Your task to perform on an android device: turn off translation in the chrome app Image 0: 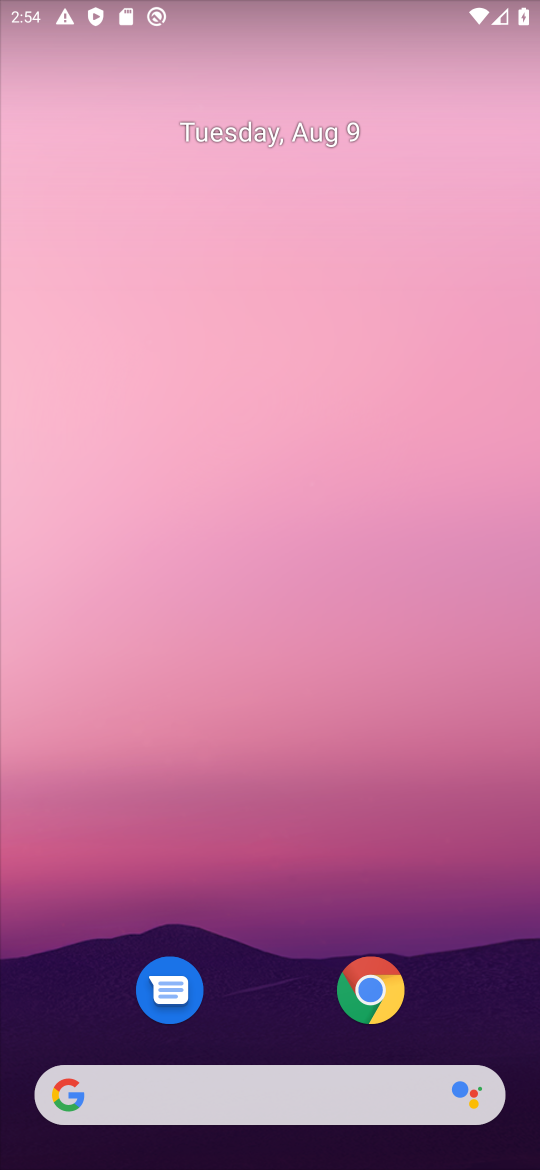
Step 0: drag from (373, 1105) to (368, 192)
Your task to perform on an android device: turn off translation in the chrome app Image 1: 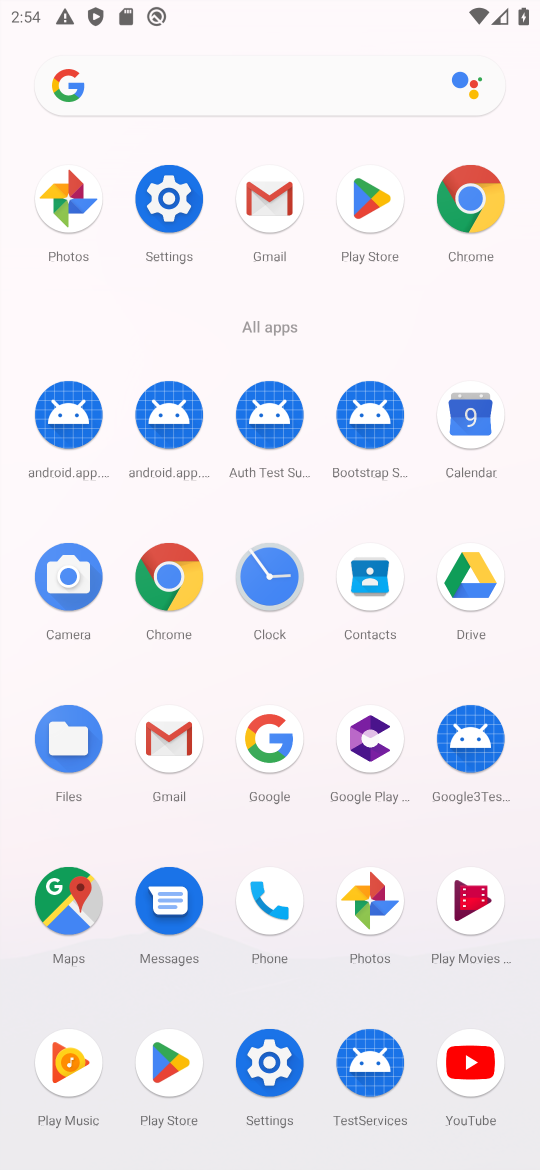
Step 1: click (149, 583)
Your task to perform on an android device: turn off translation in the chrome app Image 2: 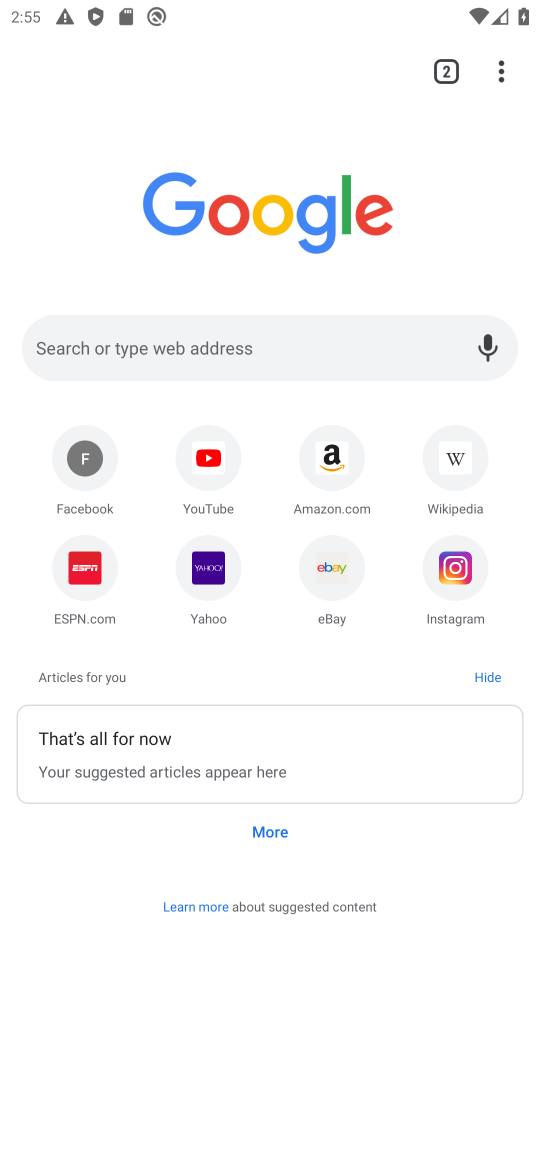
Step 2: click (488, 55)
Your task to perform on an android device: turn off translation in the chrome app Image 3: 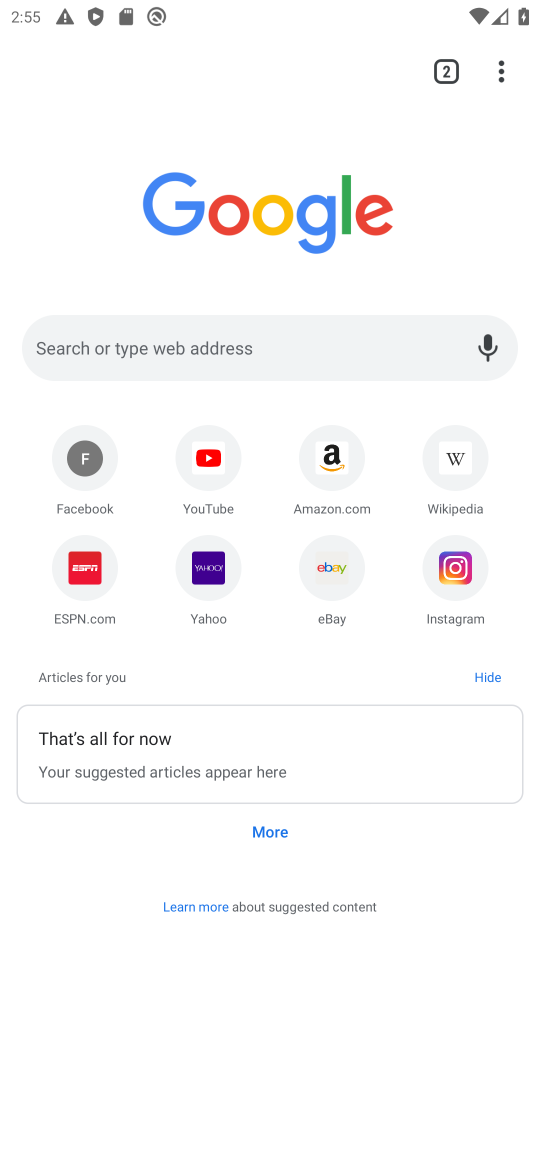
Step 3: click (512, 68)
Your task to perform on an android device: turn off translation in the chrome app Image 4: 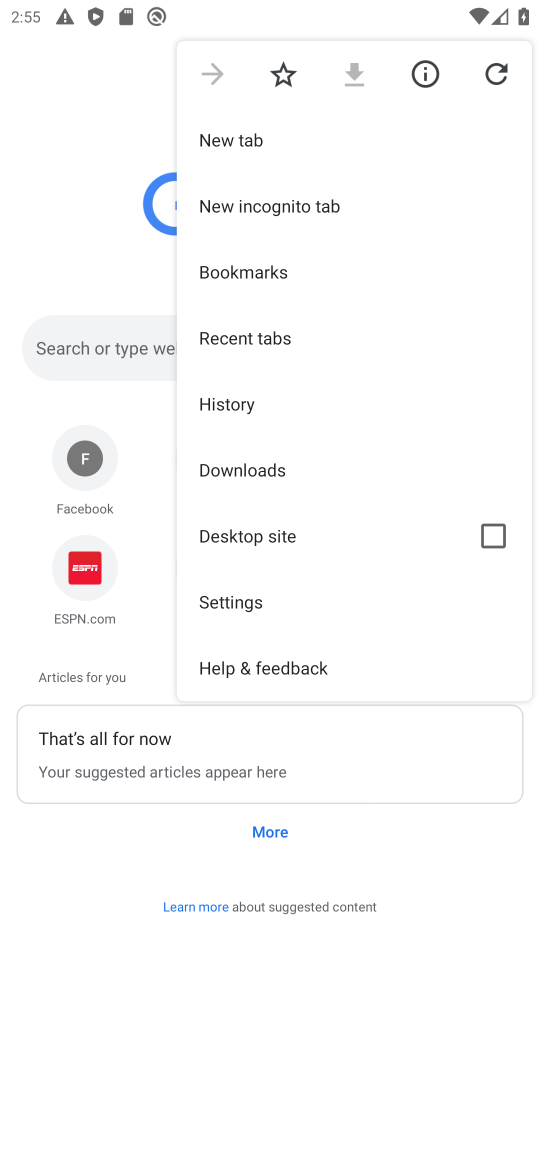
Step 4: click (264, 571)
Your task to perform on an android device: turn off translation in the chrome app Image 5: 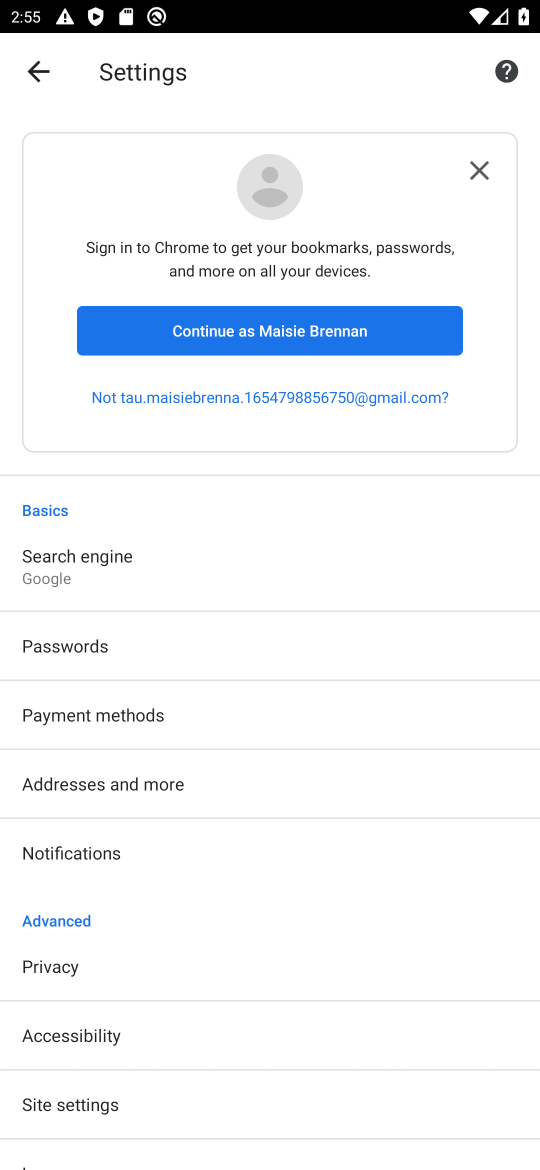
Step 5: drag from (343, 984) to (357, 550)
Your task to perform on an android device: turn off translation in the chrome app Image 6: 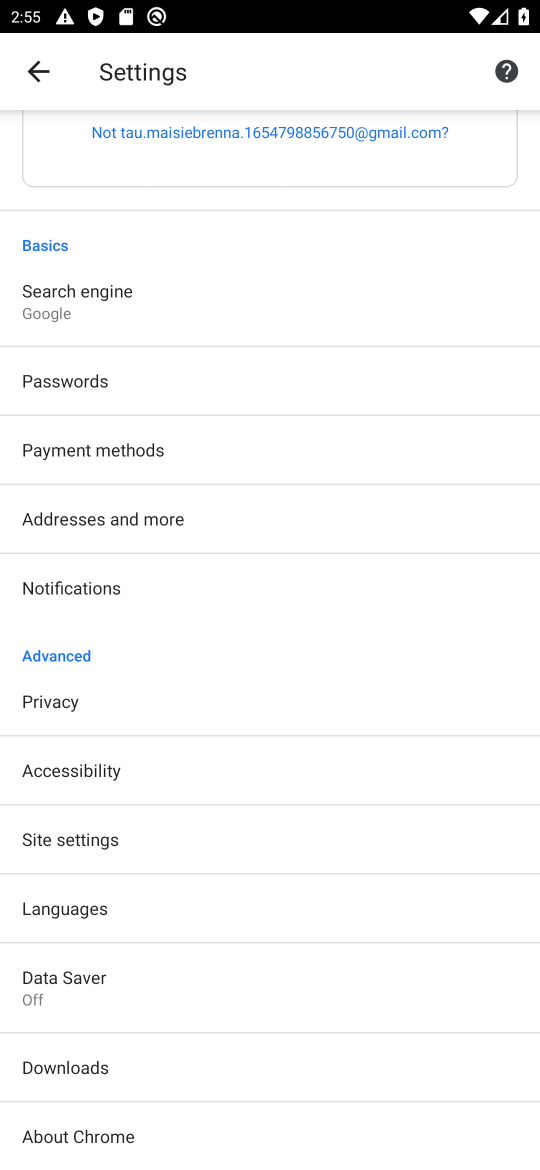
Step 6: click (113, 845)
Your task to perform on an android device: turn off translation in the chrome app Image 7: 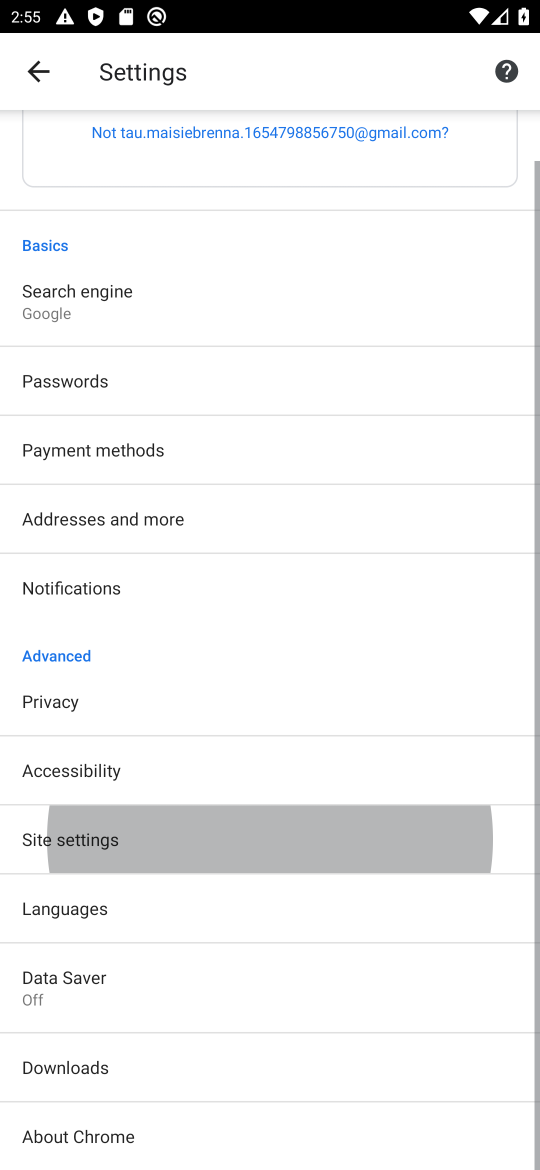
Step 7: click (113, 845)
Your task to perform on an android device: turn off translation in the chrome app Image 8: 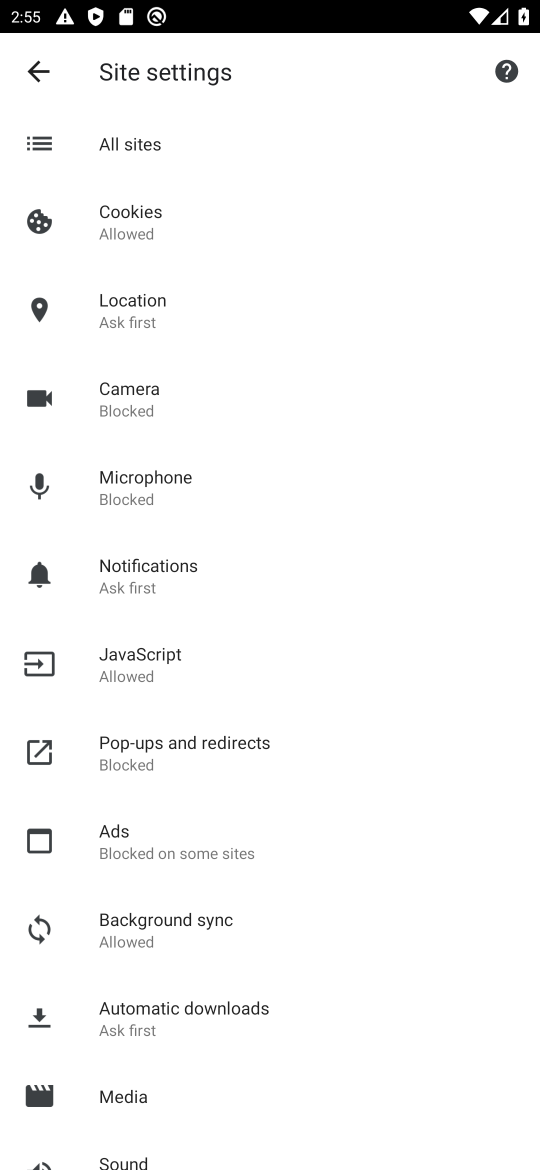
Step 8: press back button
Your task to perform on an android device: turn off translation in the chrome app Image 9: 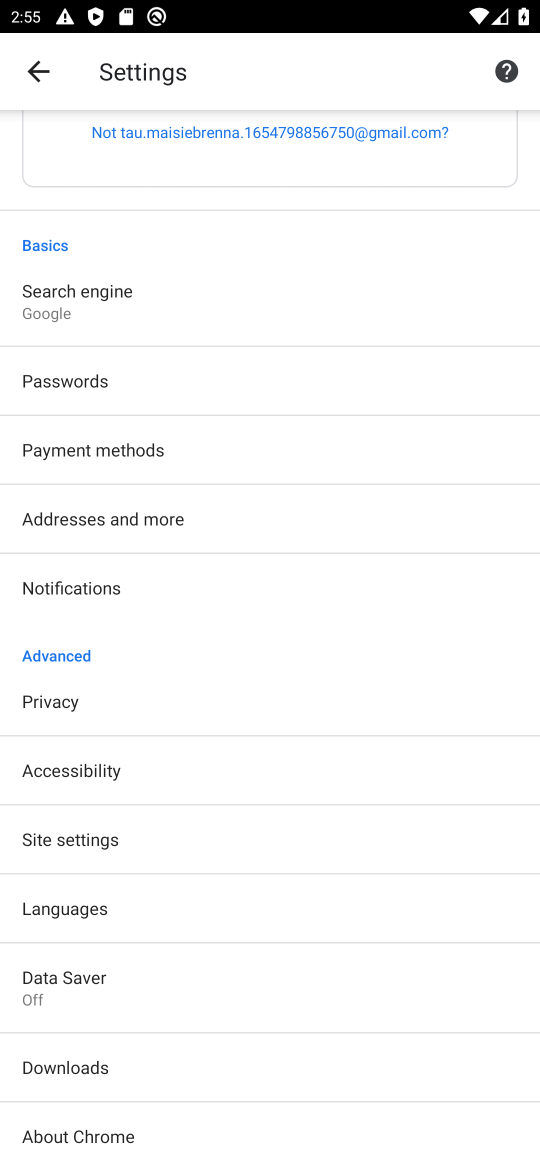
Step 9: click (123, 886)
Your task to perform on an android device: turn off translation in the chrome app Image 10: 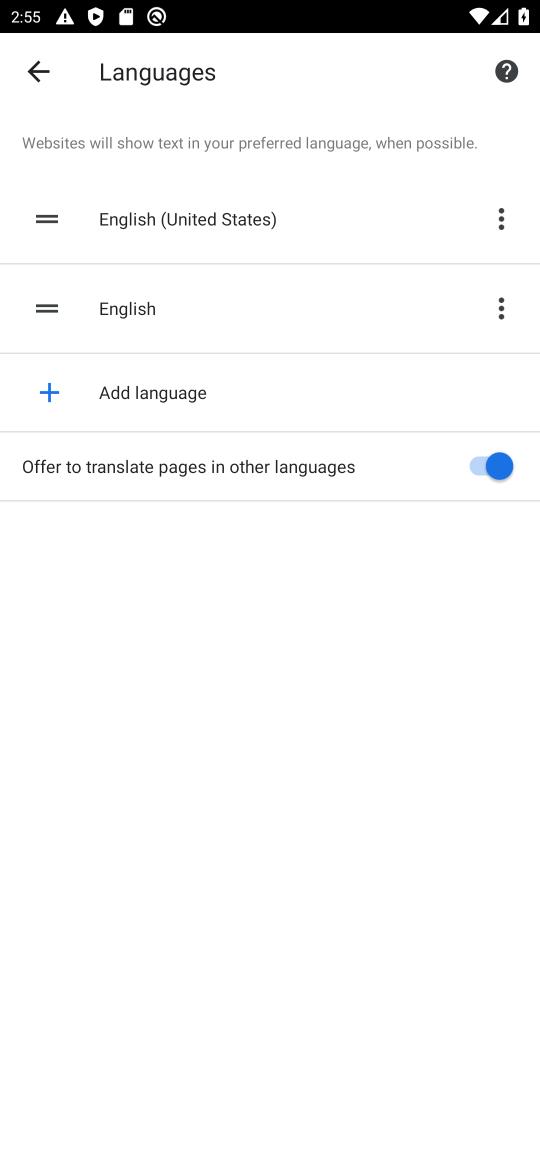
Step 10: click (494, 457)
Your task to perform on an android device: turn off translation in the chrome app Image 11: 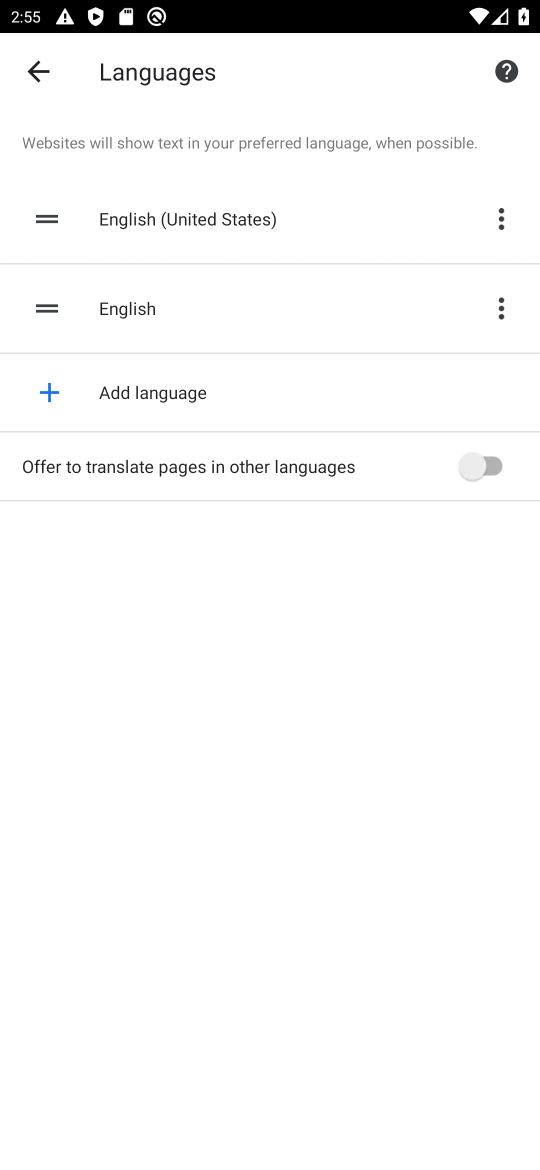
Step 11: task complete